Your task to perform on an android device: turn on notifications settings in the gmail app Image 0: 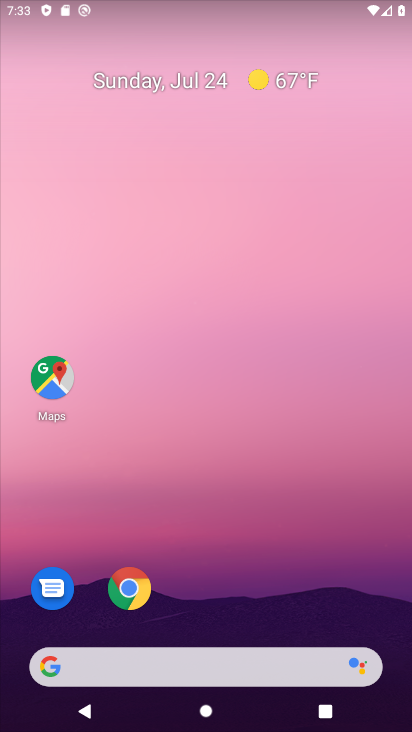
Step 0: drag from (232, 635) to (235, 293)
Your task to perform on an android device: turn on notifications settings in the gmail app Image 1: 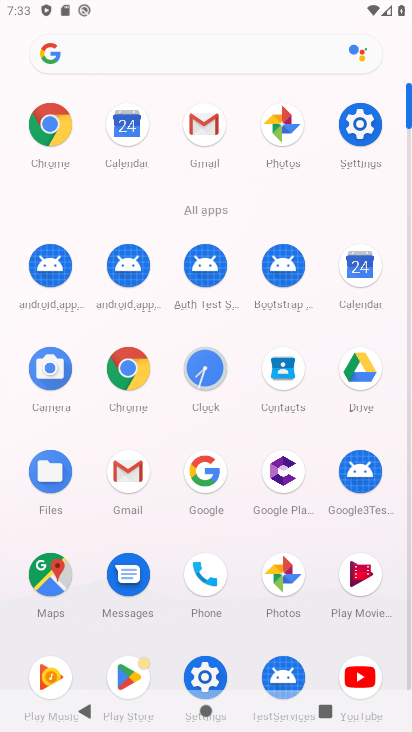
Step 1: click (184, 121)
Your task to perform on an android device: turn on notifications settings in the gmail app Image 2: 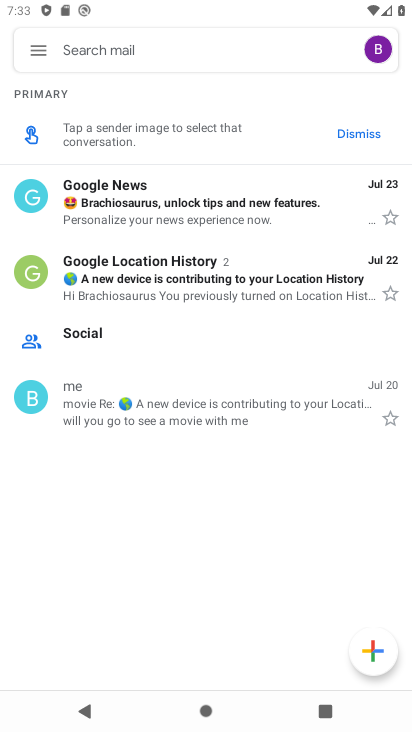
Step 2: click (36, 38)
Your task to perform on an android device: turn on notifications settings in the gmail app Image 3: 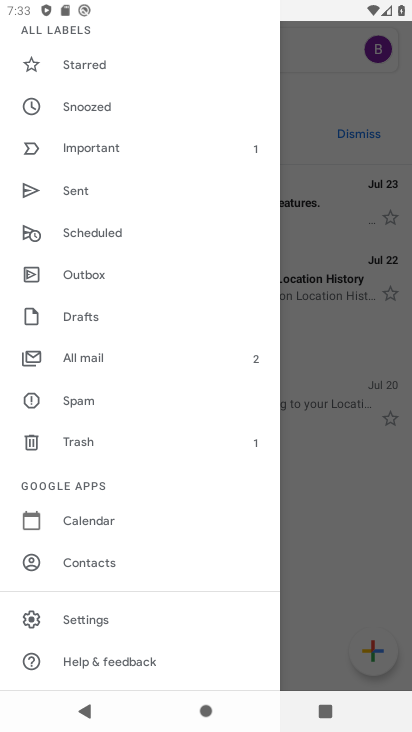
Step 3: click (71, 607)
Your task to perform on an android device: turn on notifications settings in the gmail app Image 4: 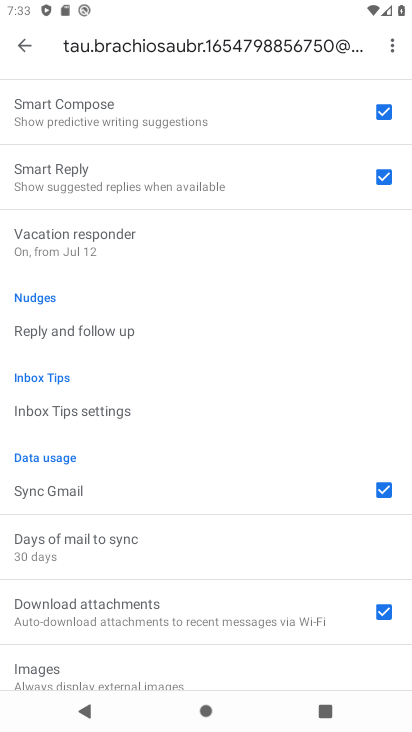
Step 4: click (20, 42)
Your task to perform on an android device: turn on notifications settings in the gmail app Image 5: 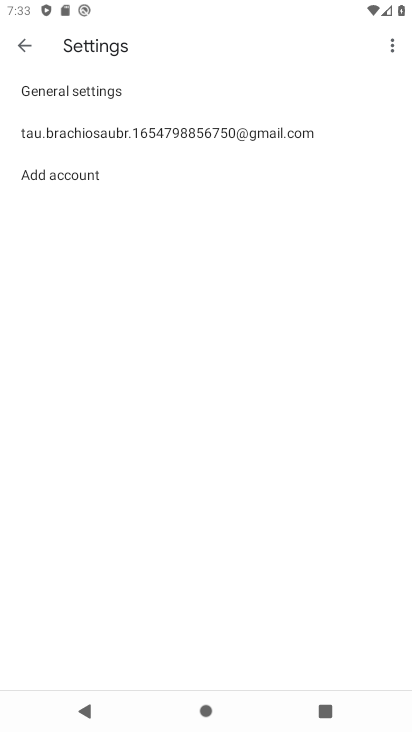
Step 5: click (73, 95)
Your task to perform on an android device: turn on notifications settings in the gmail app Image 6: 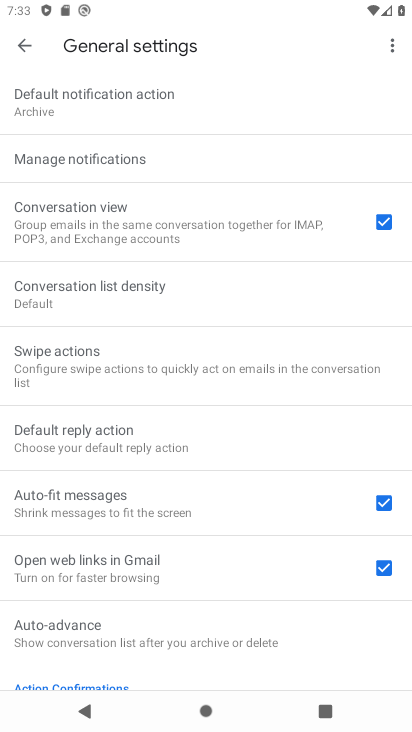
Step 6: click (50, 160)
Your task to perform on an android device: turn on notifications settings in the gmail app Image 7: 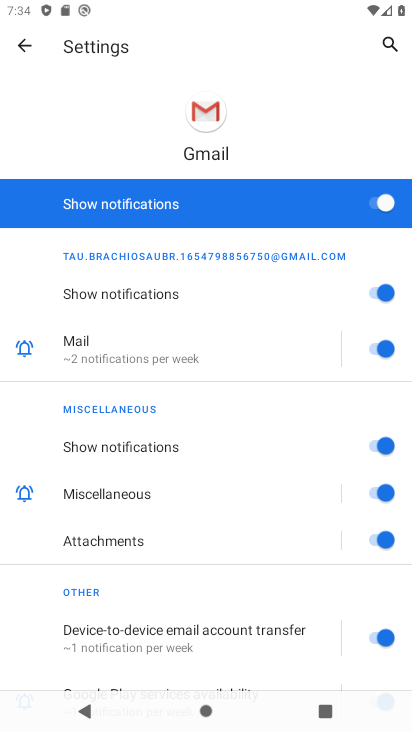
Step 7: task complete